Your task to perform on an android device: open chrome privacy settings Image 0: 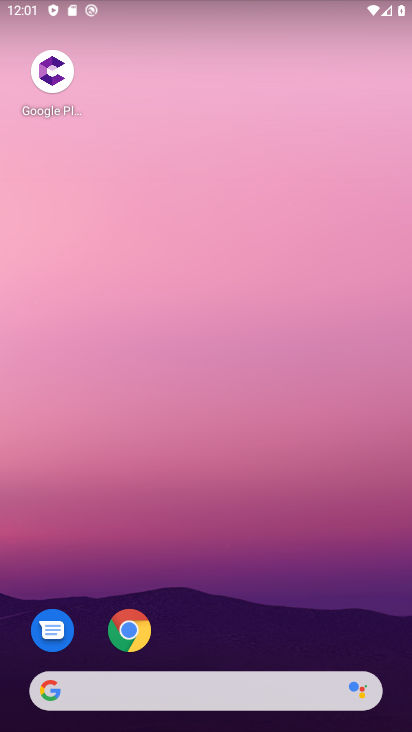
Step 0: click (127, 630)
Your task to perform on an android device: open chrome privacy settings Image 1: 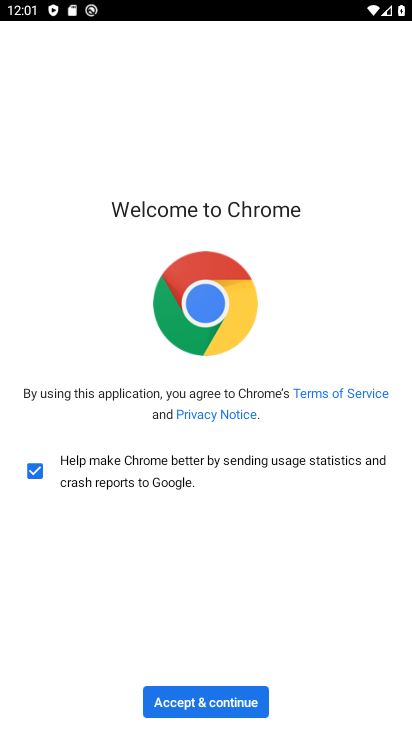
Step 1: click (200, 697)
Your task to perform on an android device: open chrome privacy settings Image 2: 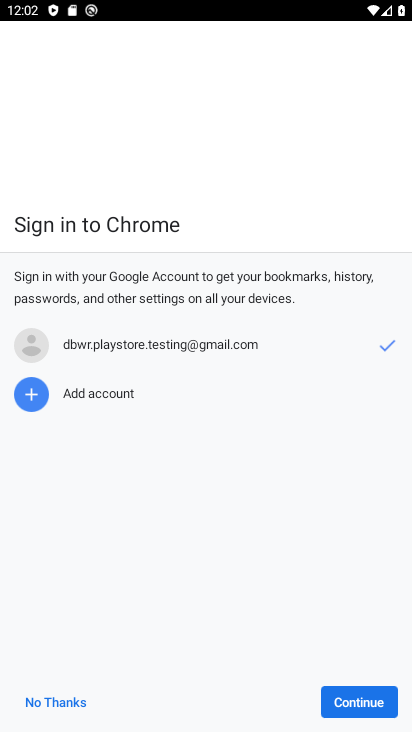
Step 2: click (347, 704)
Your task to perform on an android device: open chrome privacy settings Image 3: 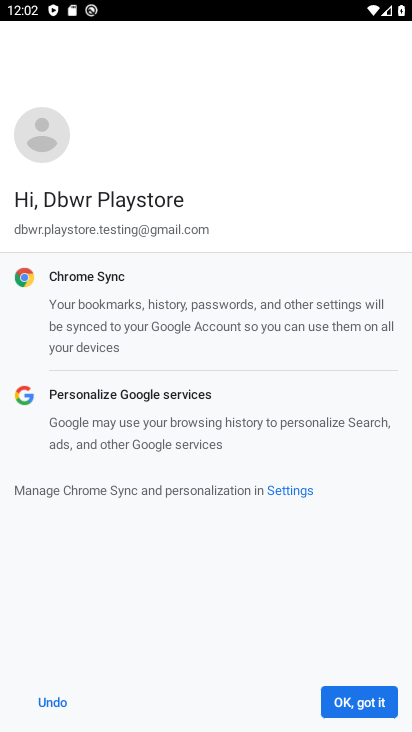
Step 3: click (347, 704)
Your task to perform on an android device: open chrome privacy settings Image 4: 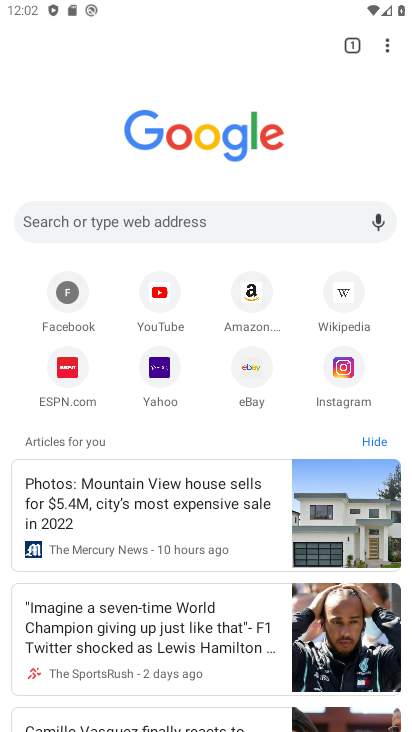
Step 4: click (386, 43)
Your task to perform on an android device: open chrome privacy settings Image 5: 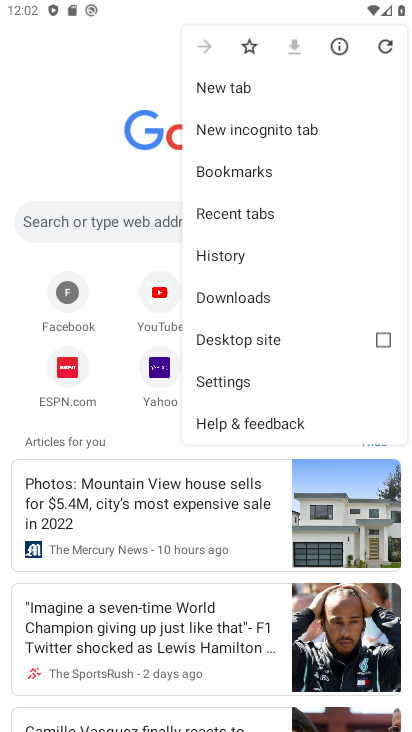
Step 5: click (229, 382)
Your task to perform on an android device: open chrome privacy settings Image 6: 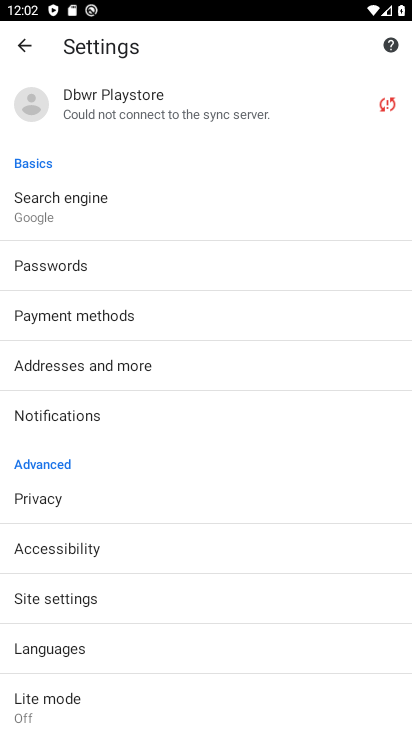
Step 6: click (50, 499)
Your task to perform on an android device: open chrome privacy settings Image 7: 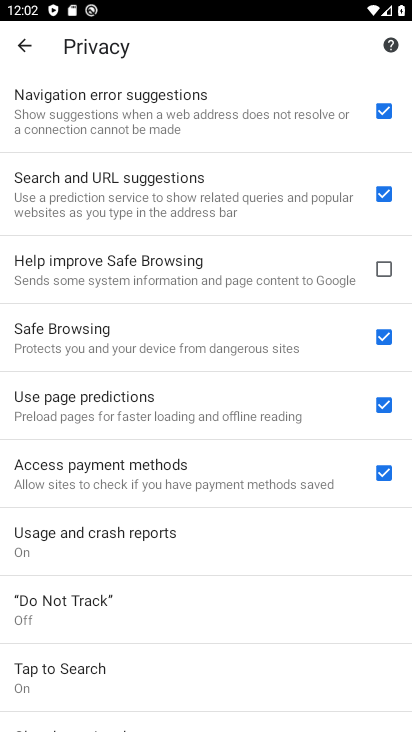
Step 7: task complete